Your task to perform on an android device: check data usage Image 0: 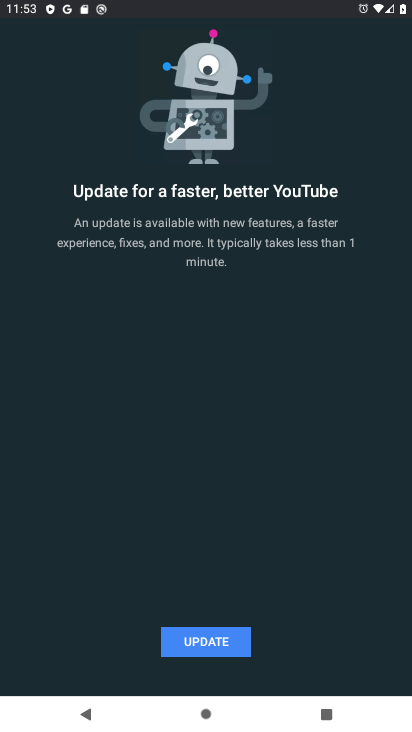
Step 0: press home button
Your task to perform on an android device: check data usage Image 1: 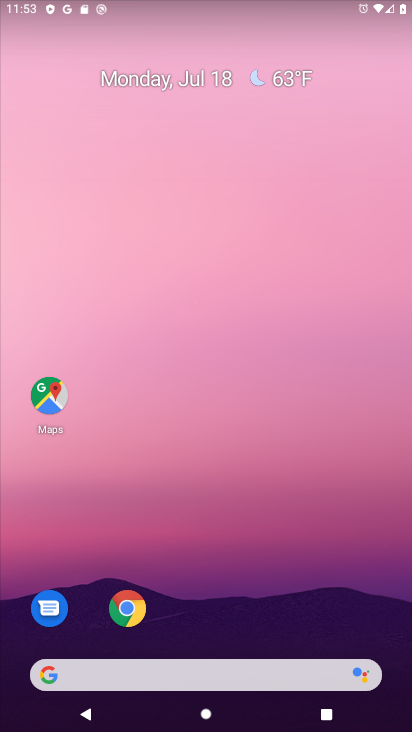
Step 1: drag from (263, 618) to (231, 0)
Your task to perform on an android device: check data usage Image 2: 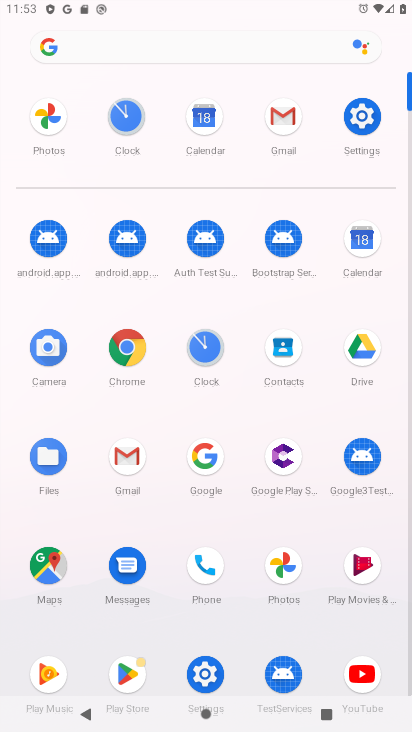
Step 2: click (352, 131)
Your task to perform on an android device: check data usage Image 3: 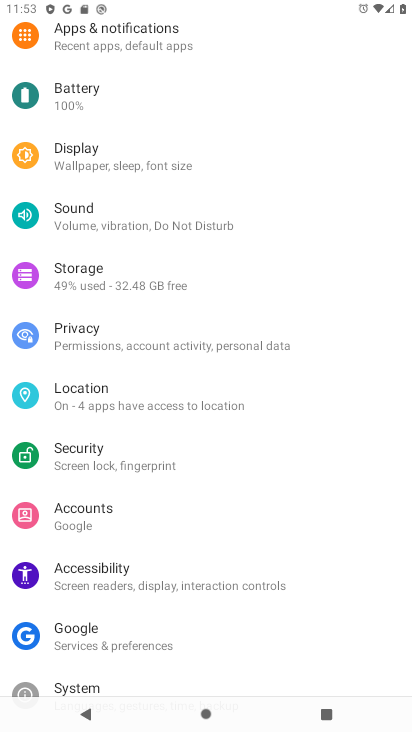
Step 3: drag from (122, 139) to (200, 490)
Your task to perform on an android device: check data usage Image 4: 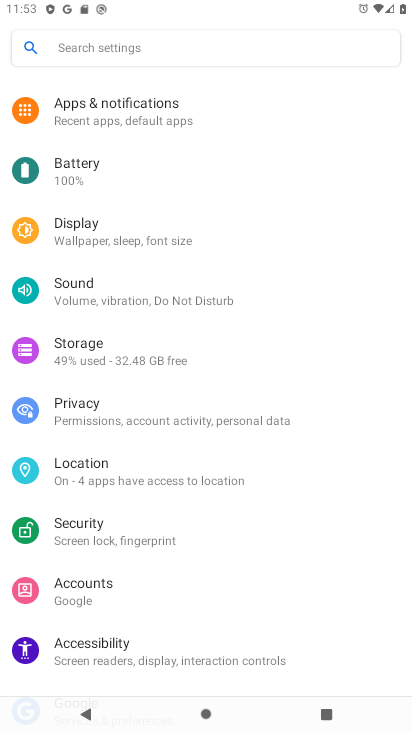
Step 4: drag from (185, 217) to (270, 503)
Your task to perform on an android device: check data usage Image 5: 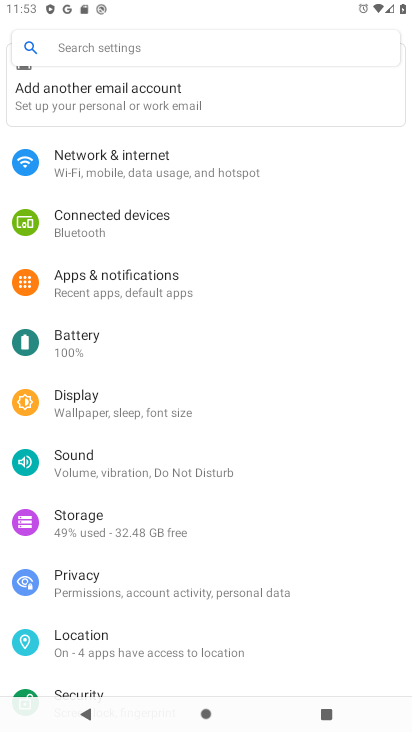
Step 5: click (177, 178)
Your task to perform on an android device: check data usage Image 6: 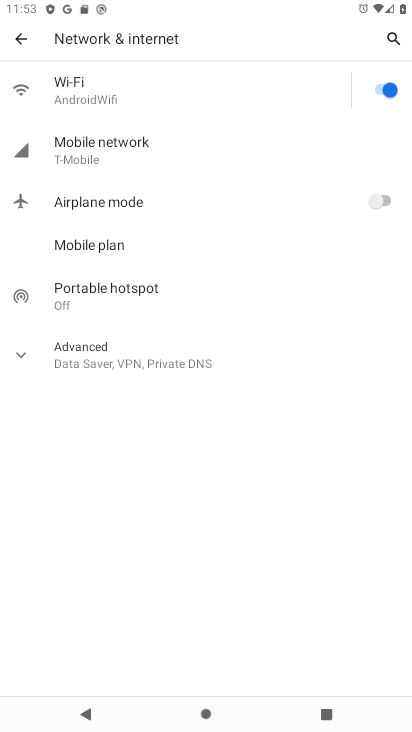
Step 6: click (113, 154)
Your task to perform on an android device: check data usage Image 7: 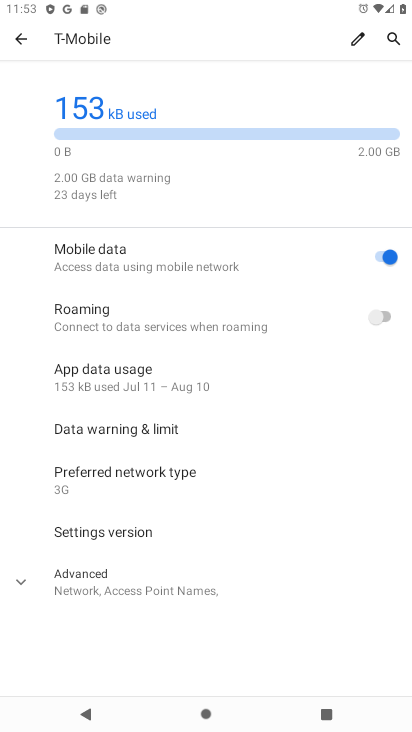
Step 7: click (112, 393)
Your task to perform on an android device: check data usage Image 8: 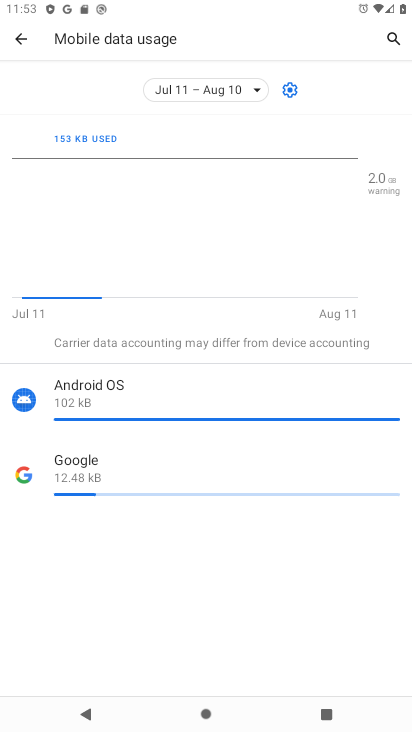
Step 8: task complete